Your task to perform on an android device: open wifi settings Image 0: 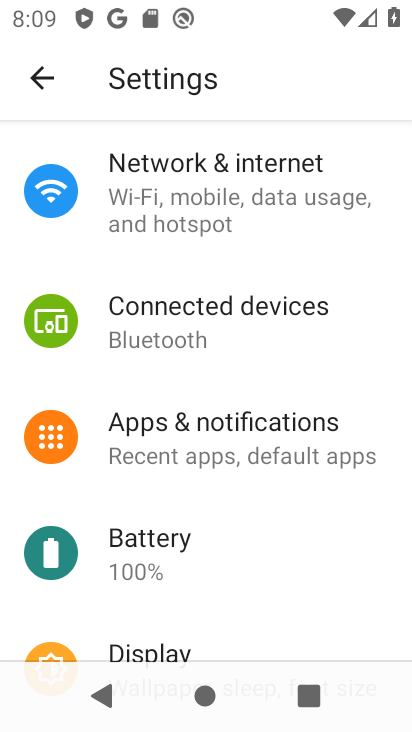
Step 0: press back button
Your task to perform on an android device: open wifi settings Image 1: 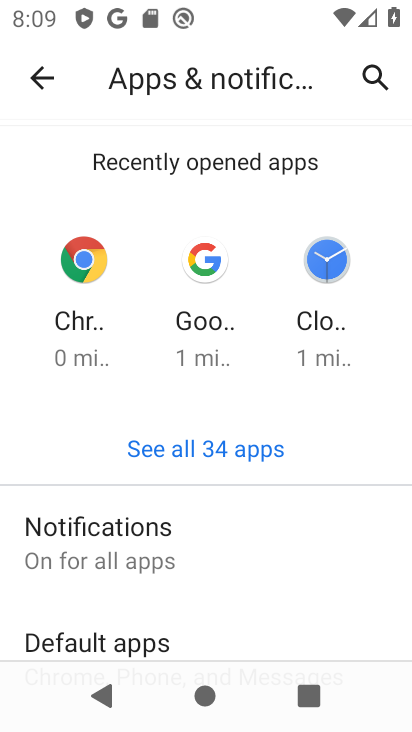
Step 1: press back button
Your task to perform on an android device: open wifi settings Image 2: 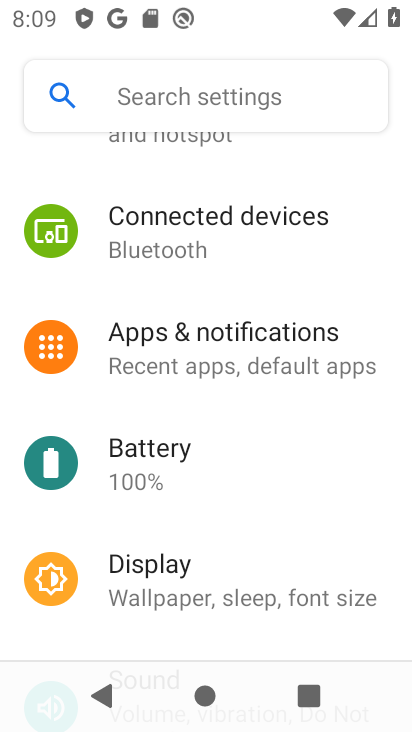
Step 2: press back button
Your task to perform on an android device: open wifi settings Image 3: 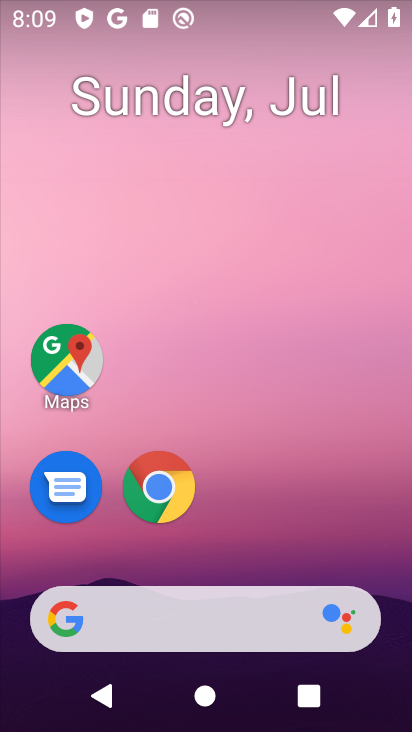
Step 3: drag from (145, 12) to (195, 504)
Your task to perform on an android device: open wifi settings Image 4: 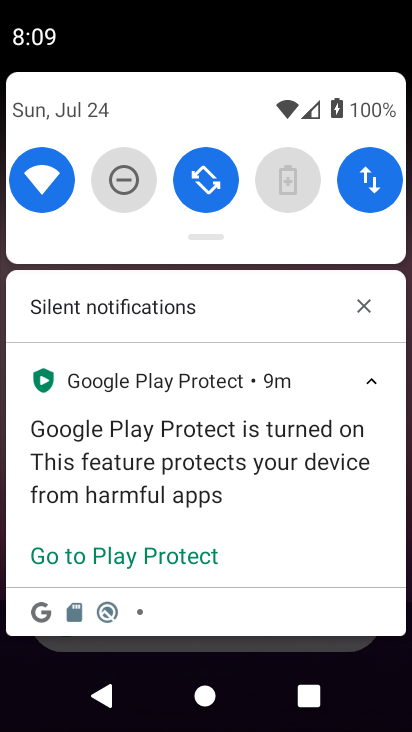
Step 4: click (40, 175)
Your task to perform on an android device: open wifi settings Image 5: 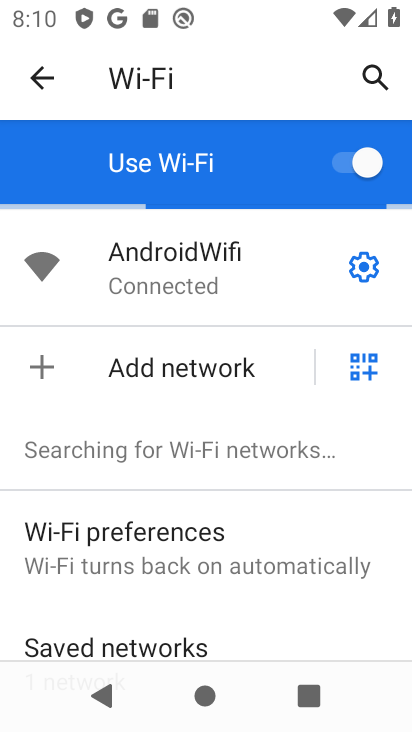
Step 5: task complete